Your task to perform on an android device: change the clock display to digital Image 0: 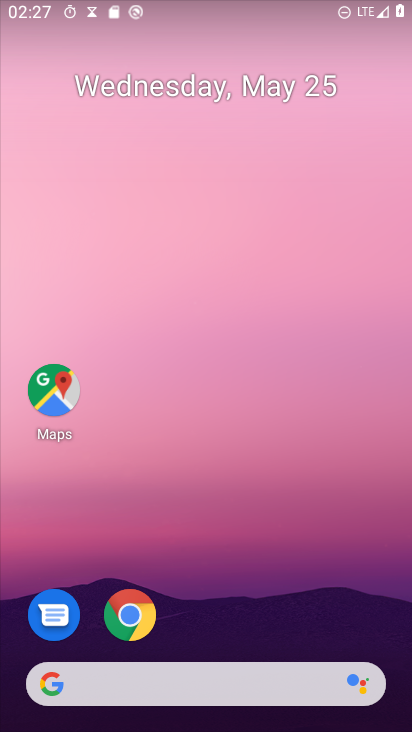
Step 0: drag from (251, 694) to (234, 109)
Your task to perform on an android device: change the clock display to digital Image 1: 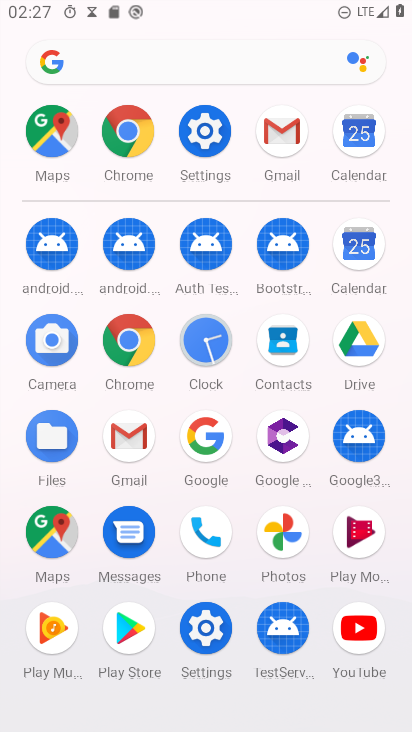
Step 1: click (212, 343)
Your task to perform on an android device: change the clock display to digital Image 2: 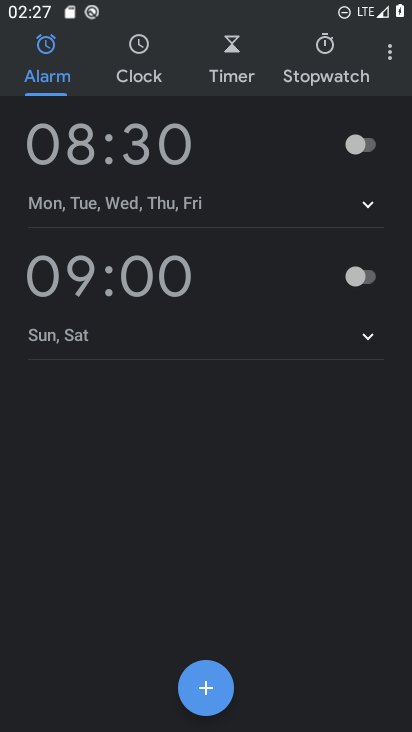
Step 2: click (384, 49)
Your task to perform on an android device: change the clock display to digital Image 3: 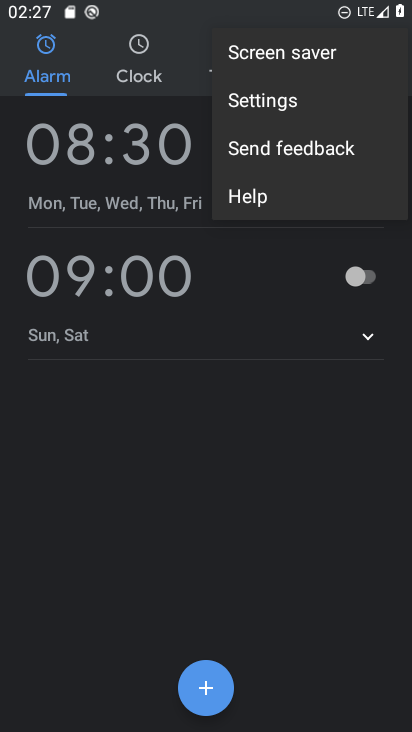
Step 3: click (248, 98)
Your task to perform on an android device: change the clock display to digital Image 4: 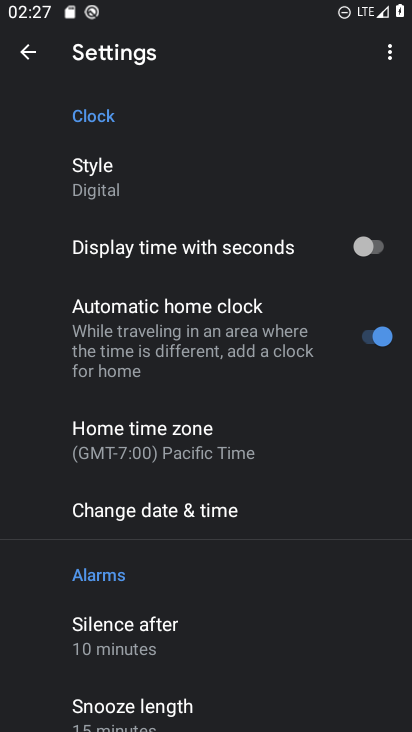
Step 4: click (89, 158)
Your task to perform on an android device: change the clock display to digital Image 5: 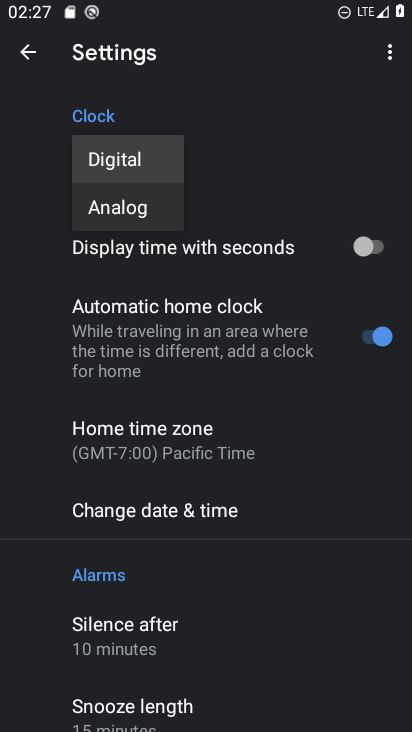
Step 5: click (122, 160)
Your task to perform on an android device: change the clock display to digital Image 6: 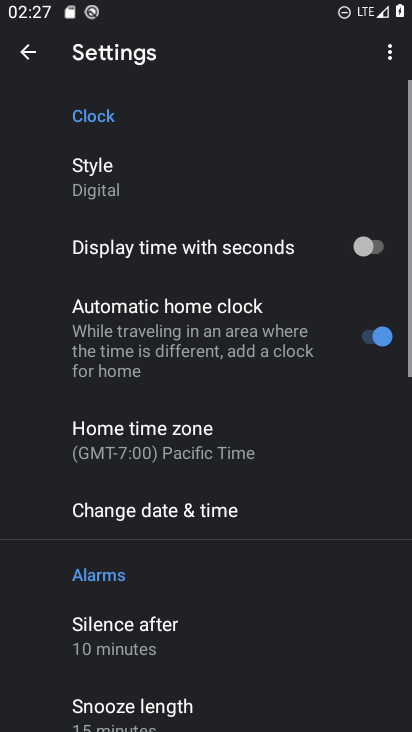
Step 6: task complete